Your task to perform on an android device: change the clock display to digital Image 0: 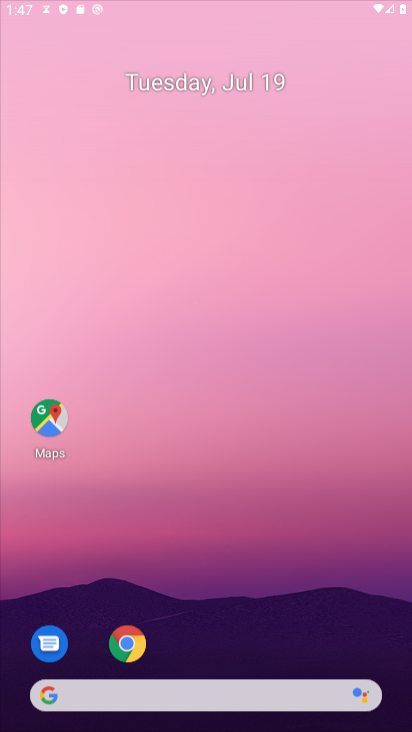
Step 0: click (248, 89)
Your task to perform on an android device: change the clock display to digital Image 1: 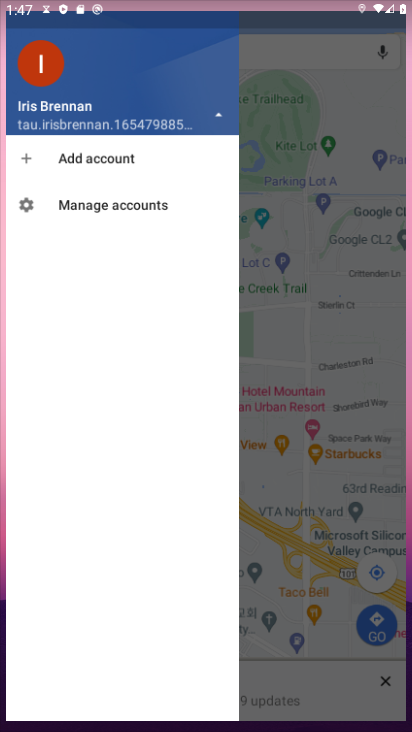
Step 1: drag from (179, 604) to (168, 137)
Your task to perform on an android device: change the clock display to digital Image 2: 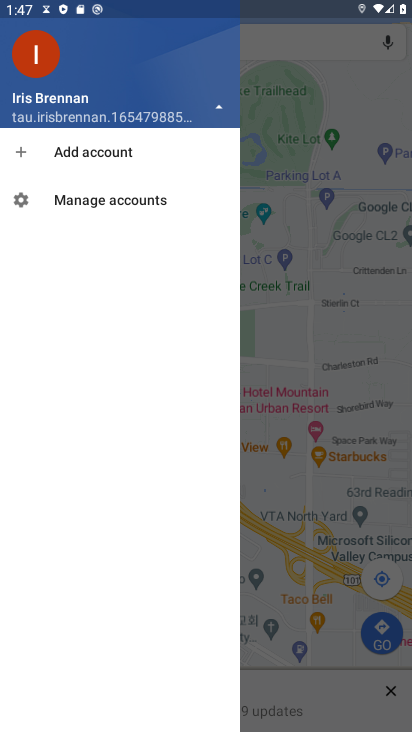
Step 2: click (301, 420)
Your task to perform on an android device: change the clock display to digital Image 3: 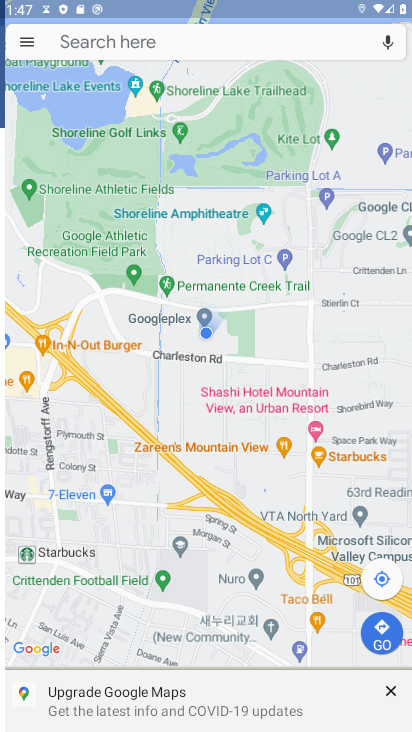
Step 3: press back button
Your task to perform on an android device: change the clock display to digital Image 4: 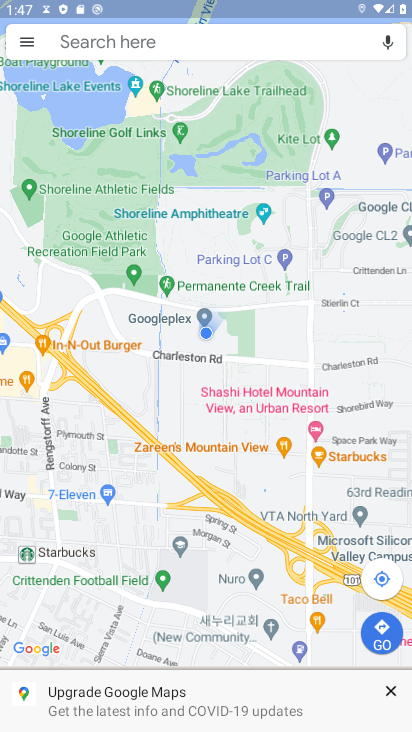
Step 4: press back button
Your task to perform on an android device: change the clock display to digital Image 5: 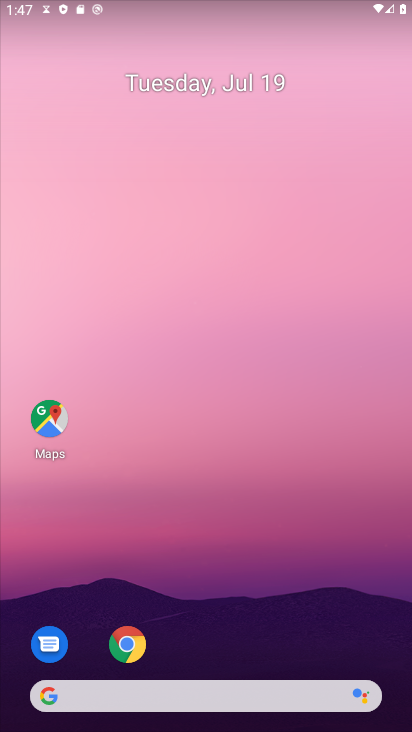
Step 5: click (264, 599)
Your task to perform on an android device: change the clock display to digital Image 6: 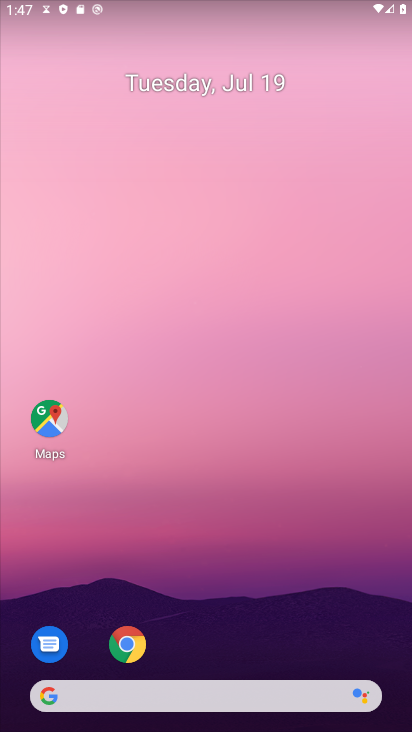
Step 6: drag from (270, 609) to (202, 86)
Your task to perform on an android device: change the clock display to digital Image 7: 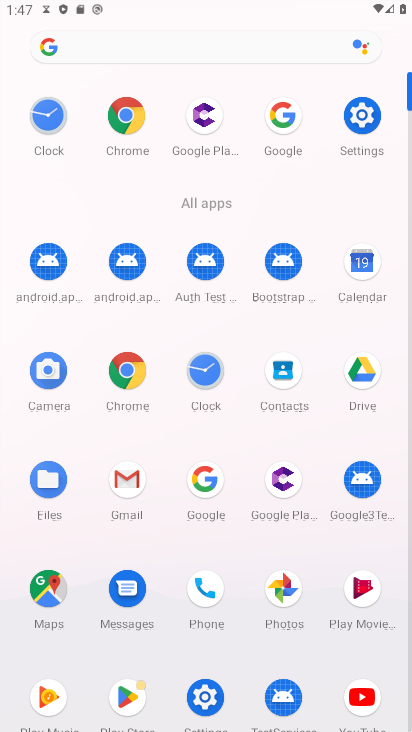
Step 7: click (207, 345)
Your task to perform on an android device: change the clock display to digital Image 8: 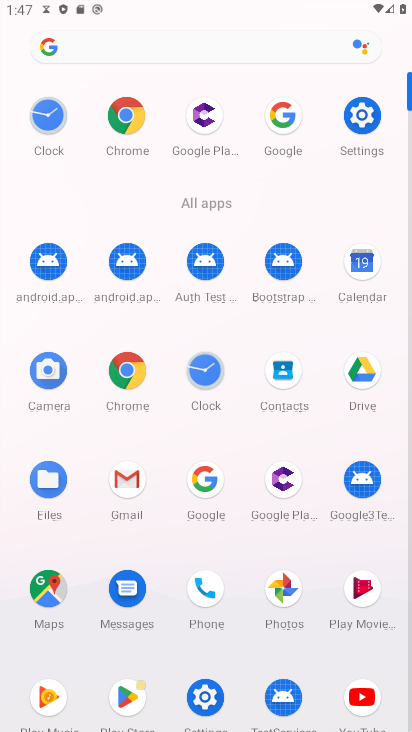
Step 8: click (207, 369)
Your task to perform on an android device: change the clock display to digital Image 9: 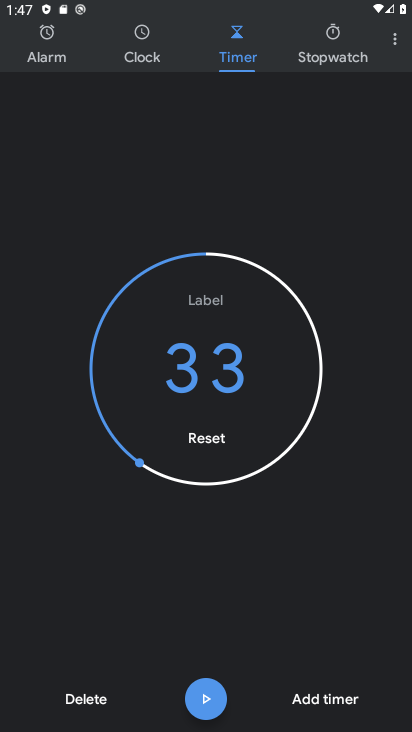
Step 9: click (395, 38)
Your task to perform on an android device: change the clock display to digital Image 10: 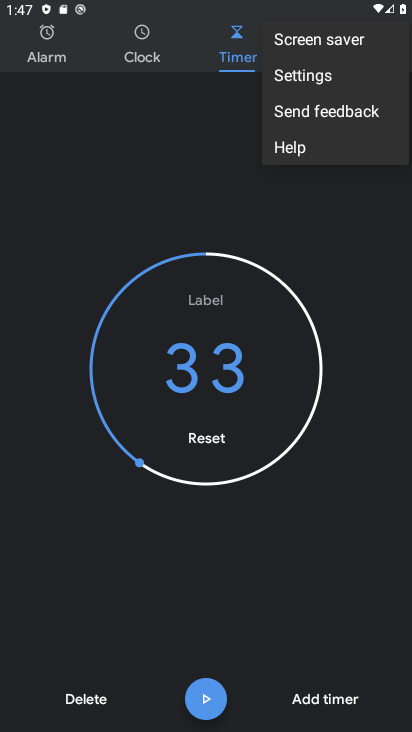
Step 10: click (283, 82)
Your task to perform on an android device: change the clock display to digital Image 11: 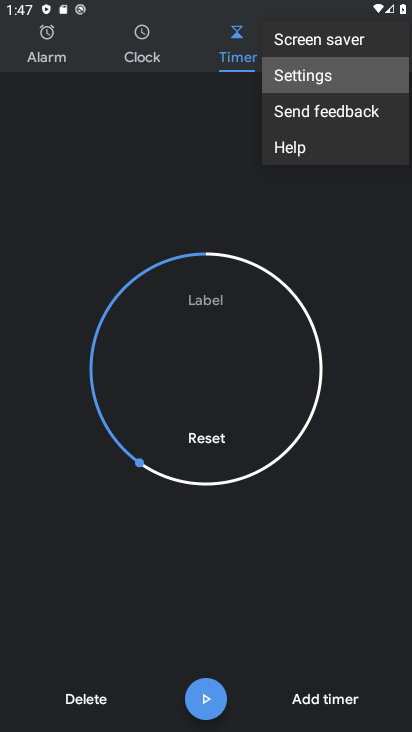
Step 11: click (300, 83)
Your task to perform on an android device: change the clock display to digital Image 12: 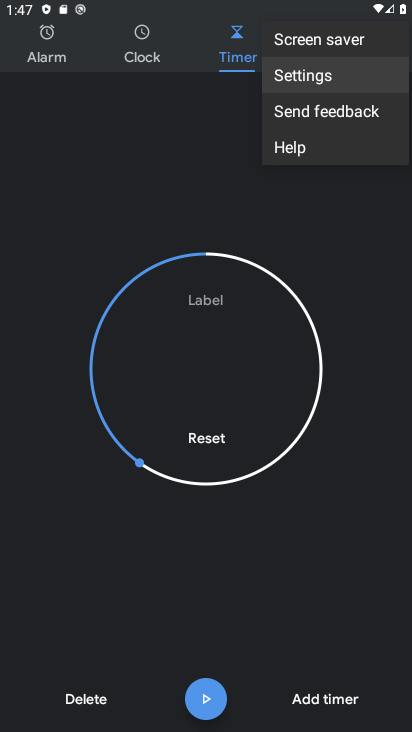
Step 12: click (304, 81)
Your task to perform on an android device: change the clock display to digital Image 13: 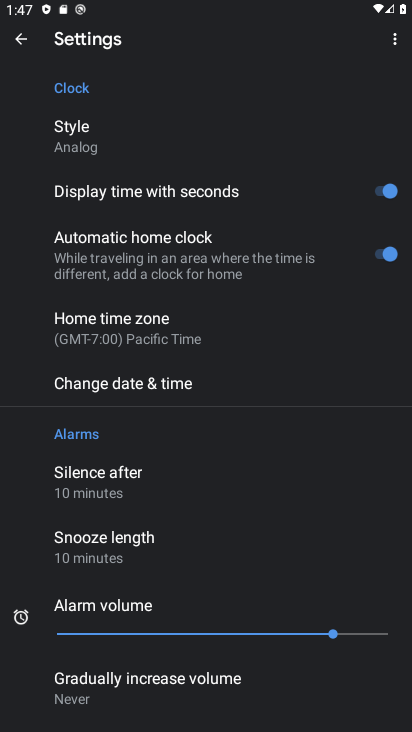
Step 13: click (100, 138)
Your task to perform on an android device: change the clock display to digital Image 14: 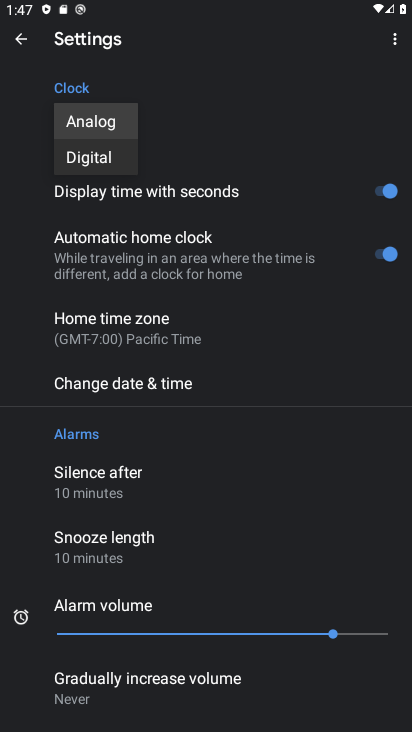
Step 14: click (93, 172)
Your task to perform on an android device: change the clock display to digital Image 15: 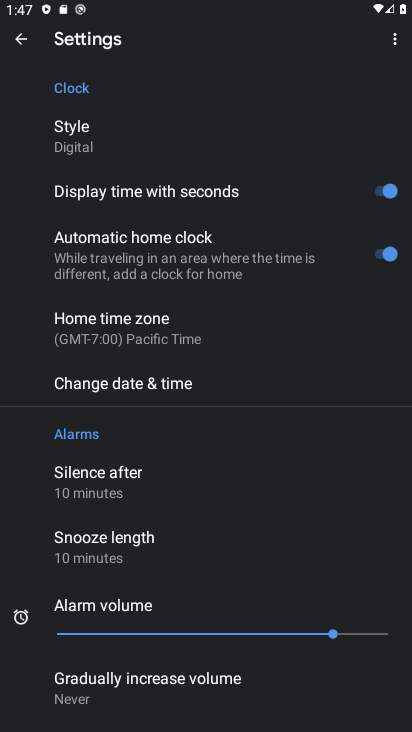
Step 15: task complete